Your task to perform on an android device: find photos in the google photos app Image 0: 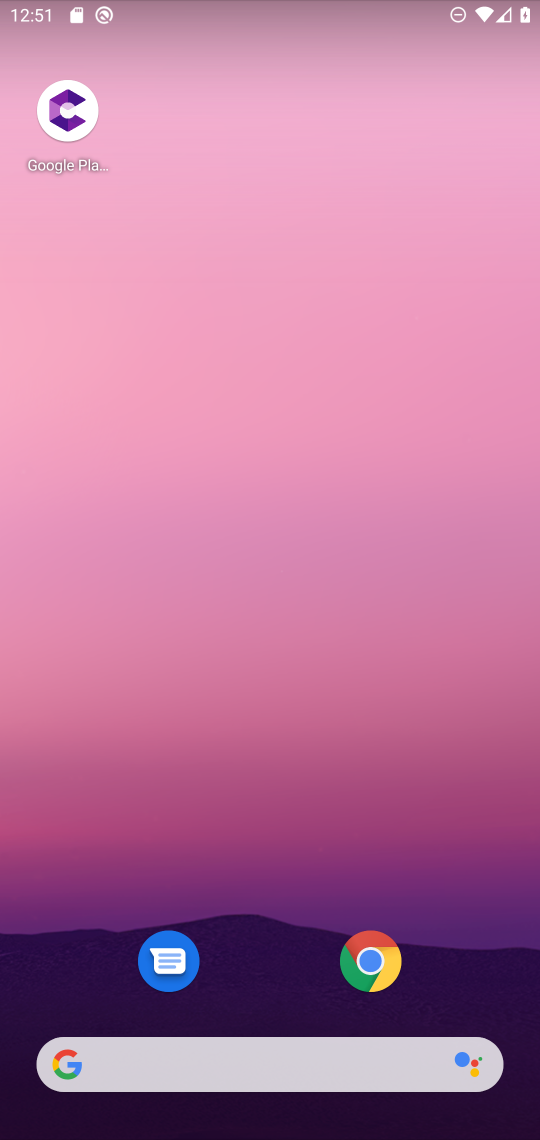
Step 0: drag from (251, 978) to (281, 18)
Your task to perform on an android device: find photos in the google photos app Image 1: 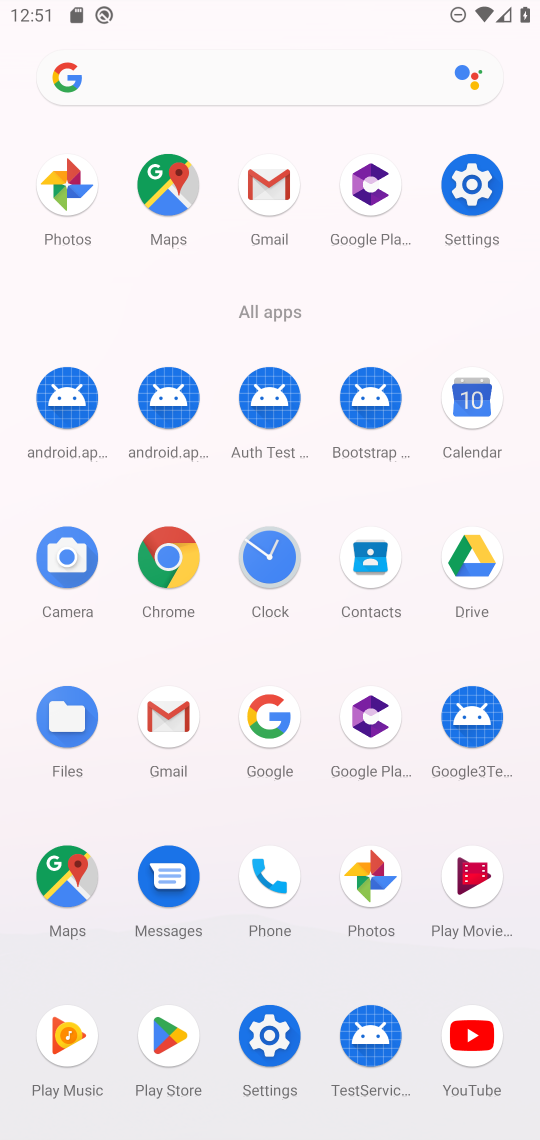
Step 1: click (64, 186)
Your task to perform on an android device: find photos in the google photos app Image 2: 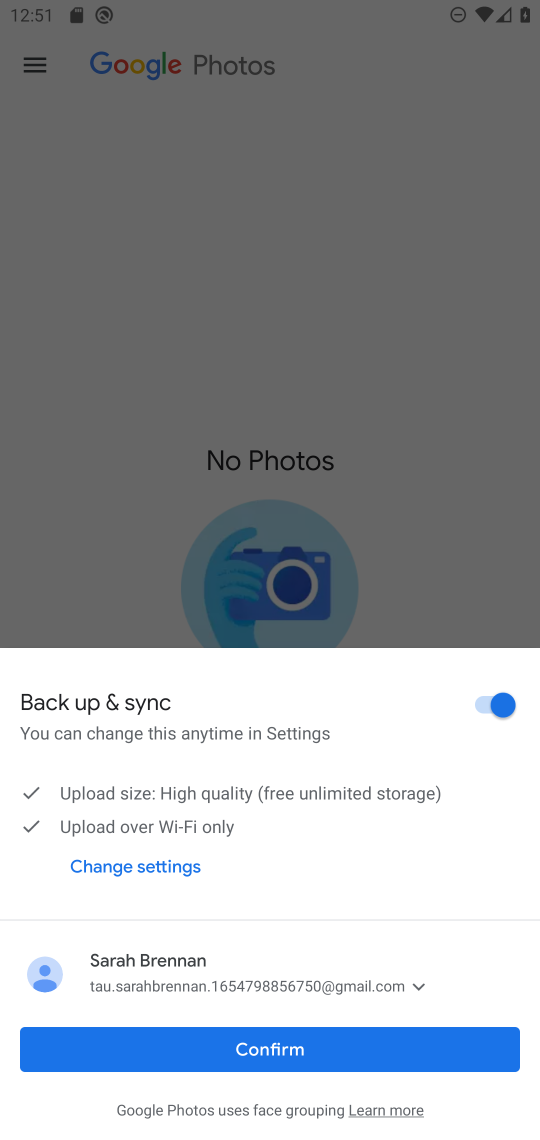
Step 2: click (274, 1044)
Your task to perform on an android device: find photos in the google photos app Image 3: 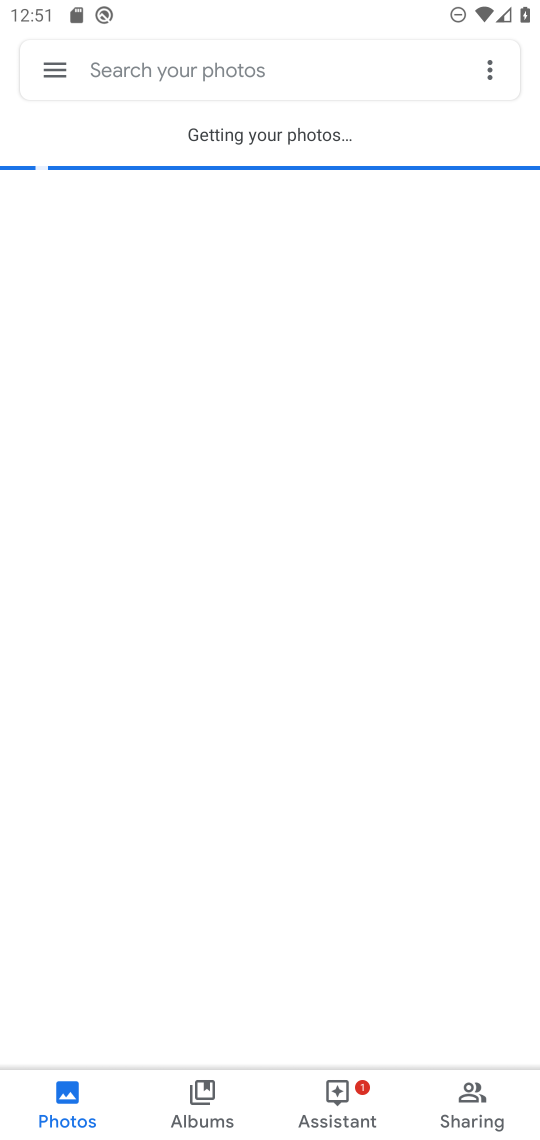
Step 3: click (189, 63)
Your task to perform on an android device: find photos in the google photos app Image 4: 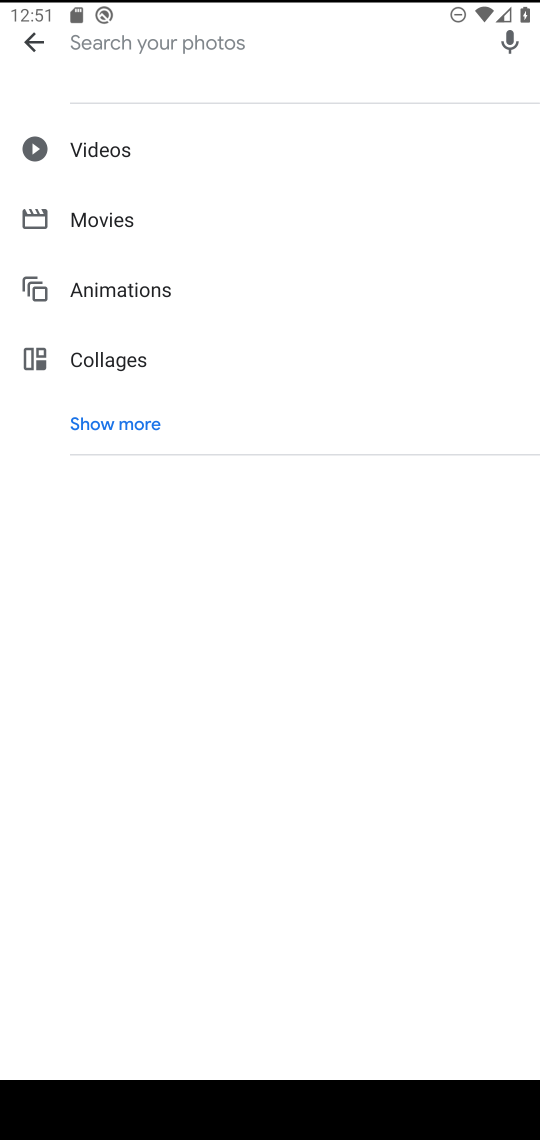
Step 4: task complete